Your task to perform on an android device: set the stopwatch Image 0: 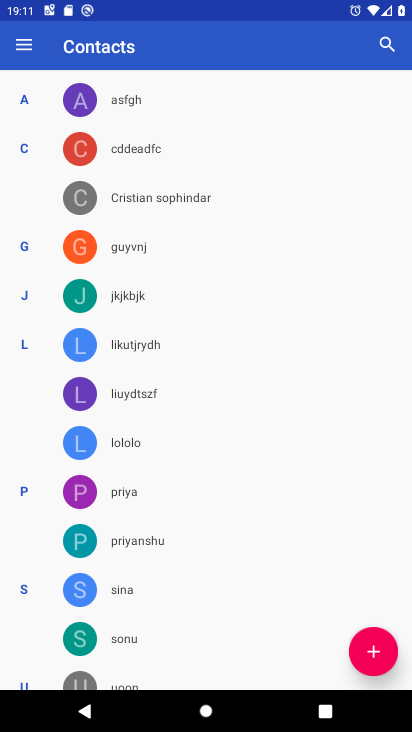
Step 0: press home button
Your task to perform on an android device: set the stopwatch Image 1: 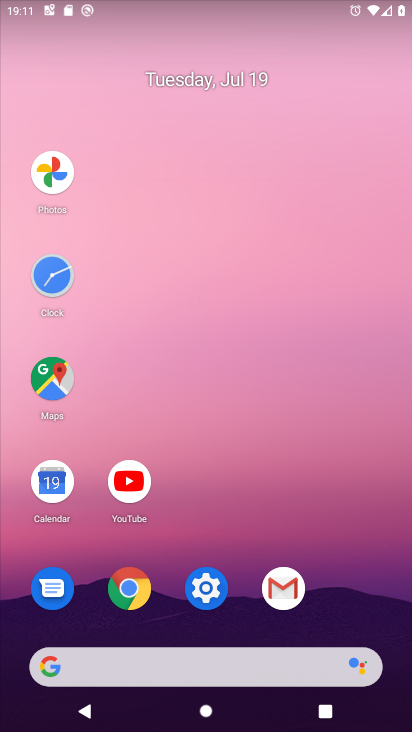
Step 1: click (56, 266)
Your task to perform on an android device: set the stopwatch Image 2: 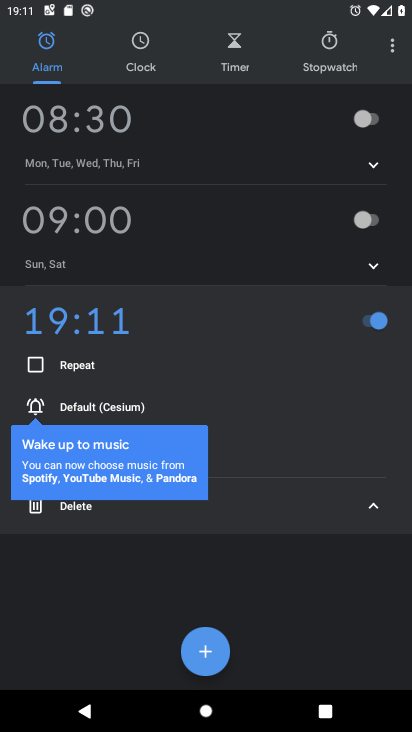
Step 2: click (334, 49)
Your task to perform on an android device: set the stopwatch Image 3: 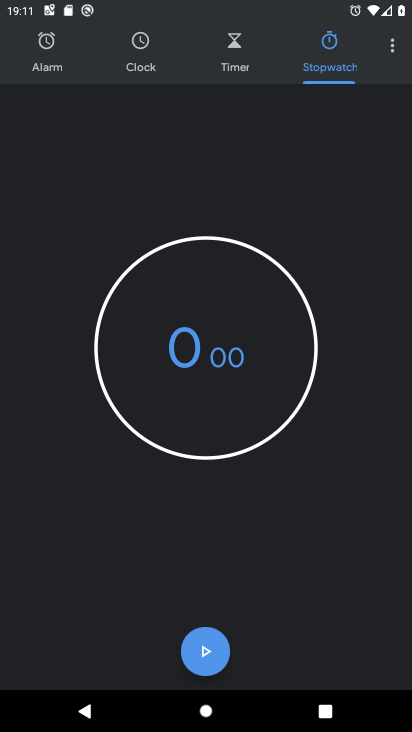
Step 3: task complete